Your task to perform on an android device: Go to battery settings Image 0: 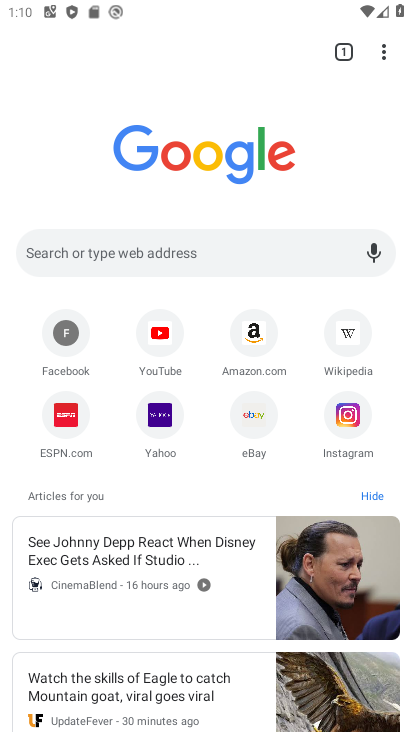
Step 0: press home button
Your task to perform on an android device: Go to battery settings Image 1: 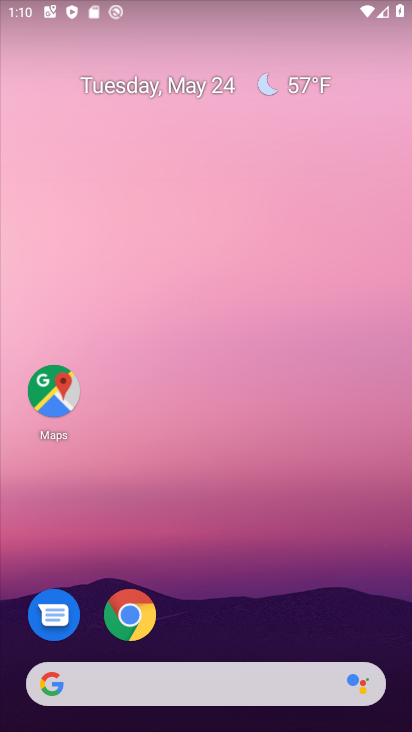
Step 1: click (203, 628)
Your task to perform on an android device: Go to battery settings Image 2: 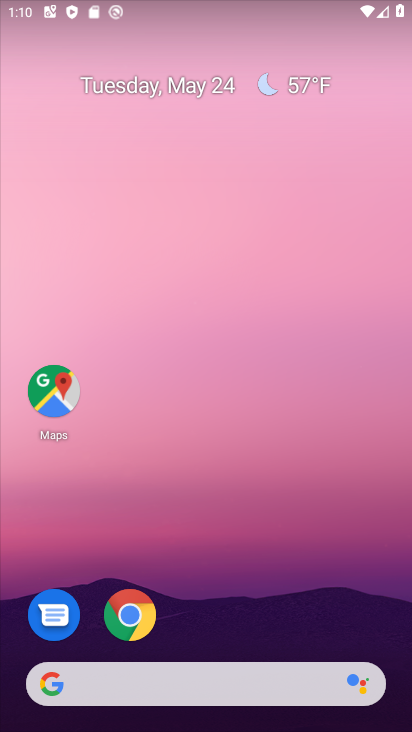
Step 2: drag from (203, 628) to (345, 83)
Your task to perform on an android device: Go to battery settings Image 3: 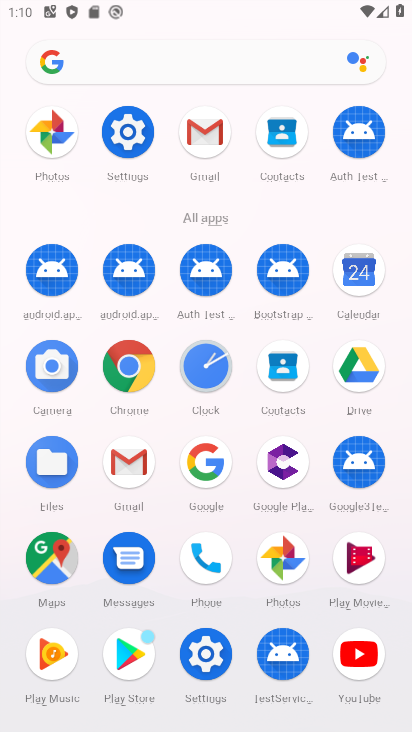
Step 3: click (102, 135)
Your task to perform on an android device: Go to battery settings Image 4: 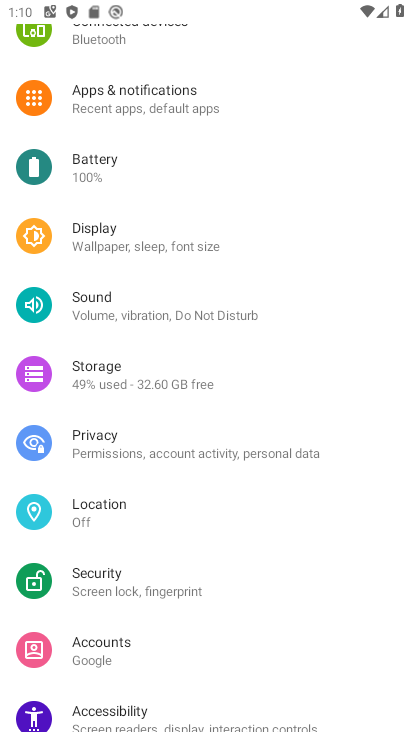
Step 4: click (109, 175)
Your task to perform on an android device: Go to battery settings Image 5: 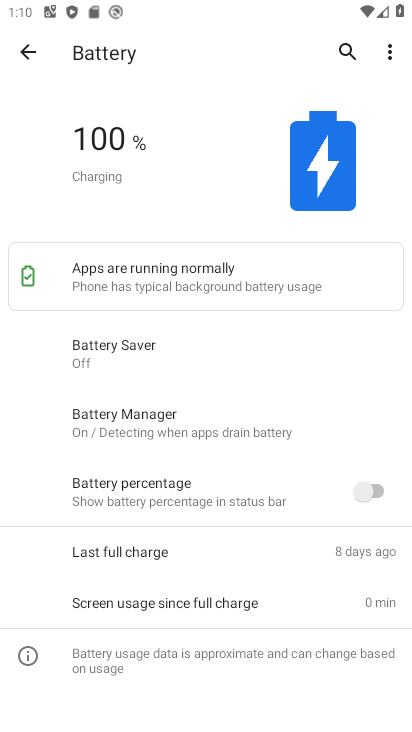
Step 5: click (113, 654)
Your task to perform on an android device: Go to battery settings Image 6: 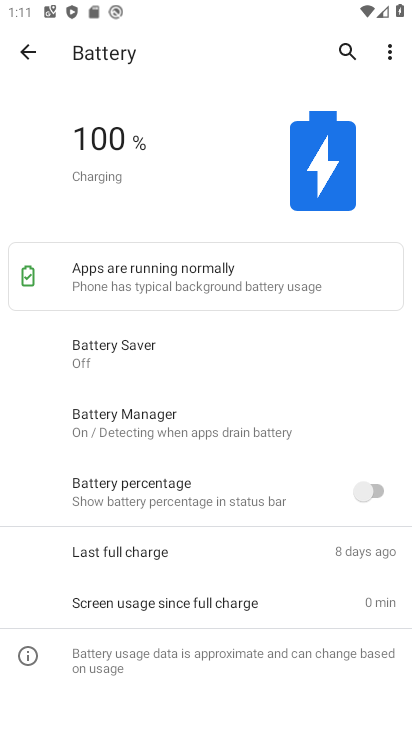
Step 6: task complete